Your task to perform on an android device: Open the calendar and show me this week's events? Image 0: 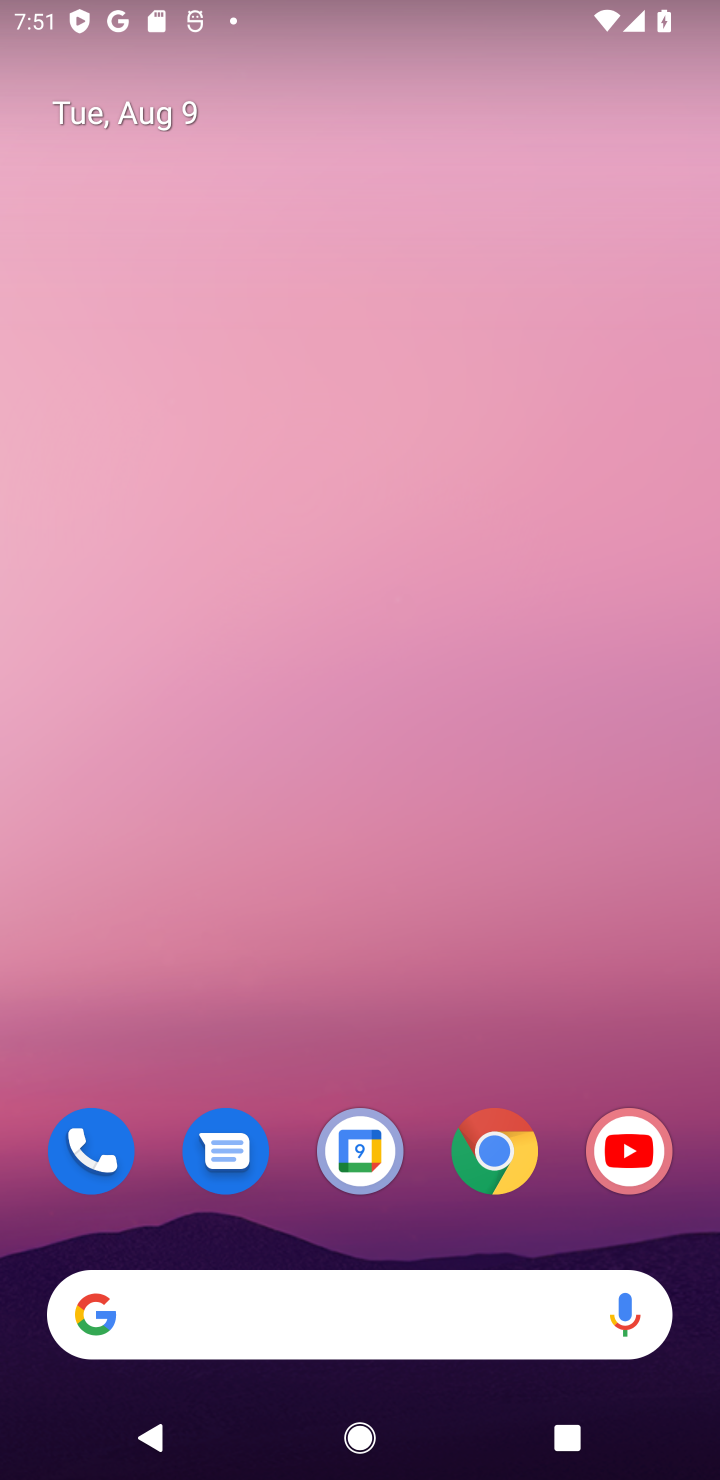
Step 0: drag from (415, 1046) to (344, 92)
Your task to perform on an android device: Open the calendar and show me this week's events? Image 1: 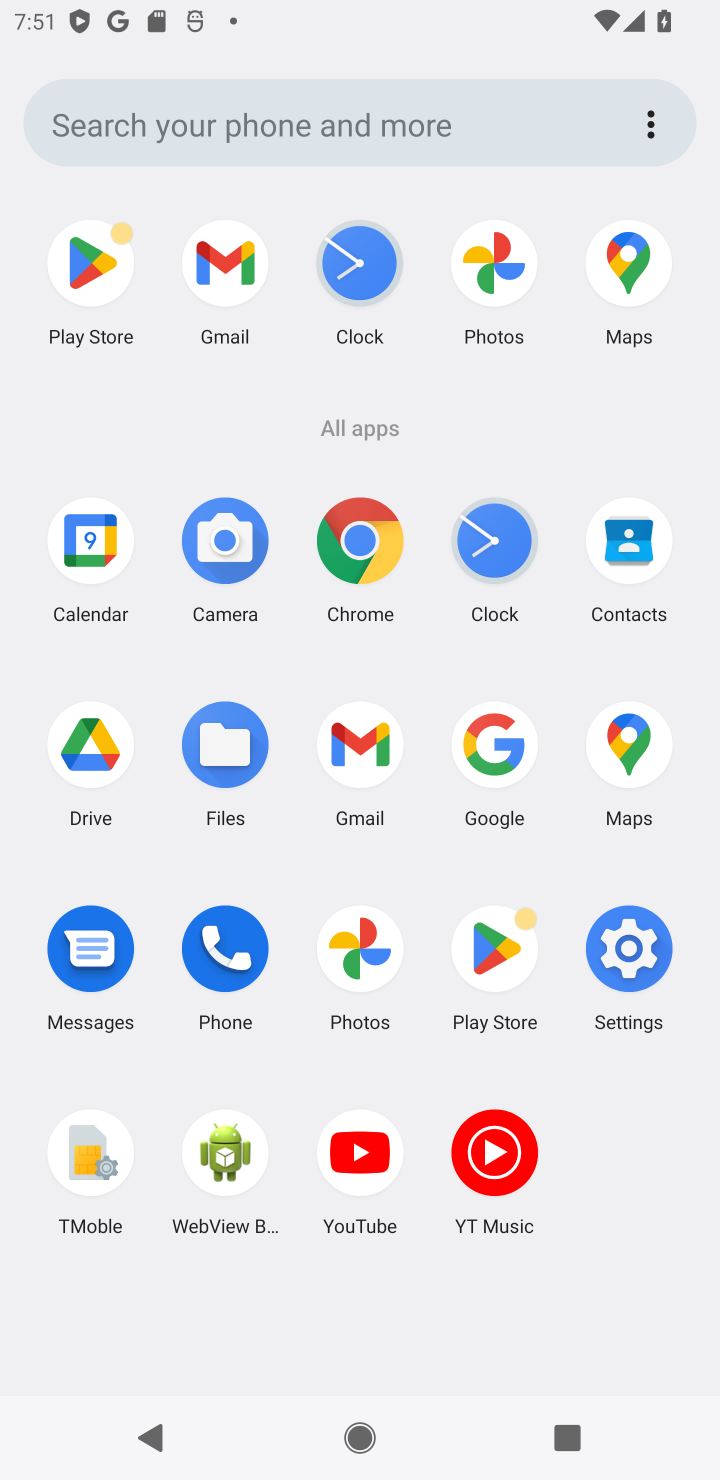
Step 1: click (74, 558)
Your task to perform on an android device: Open the calendar and show me this week's events? Image 2: 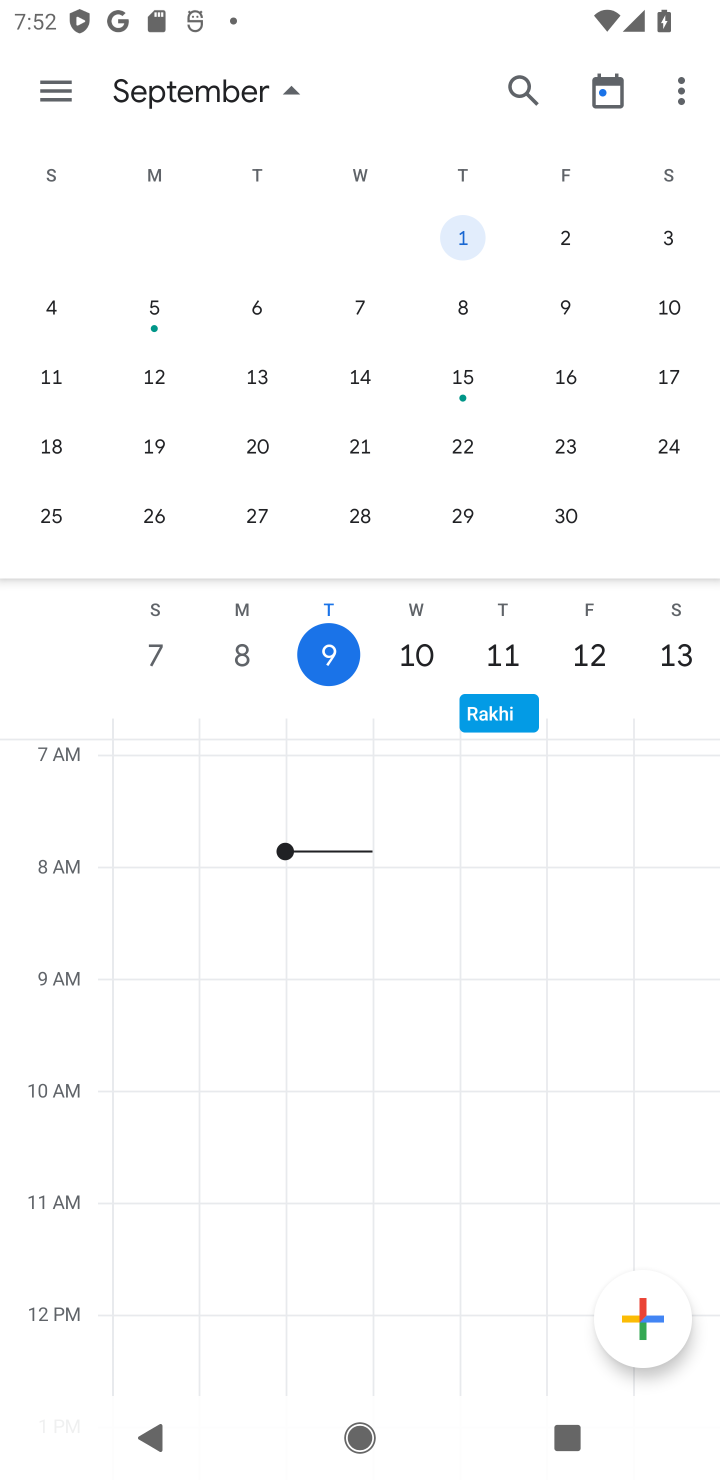
Step 2: task complete